Your task to perform on an android device: Clear the cart on costco.com. Add "jbl flip 4" to the cart on costco.com, then select checkout. Image 0: 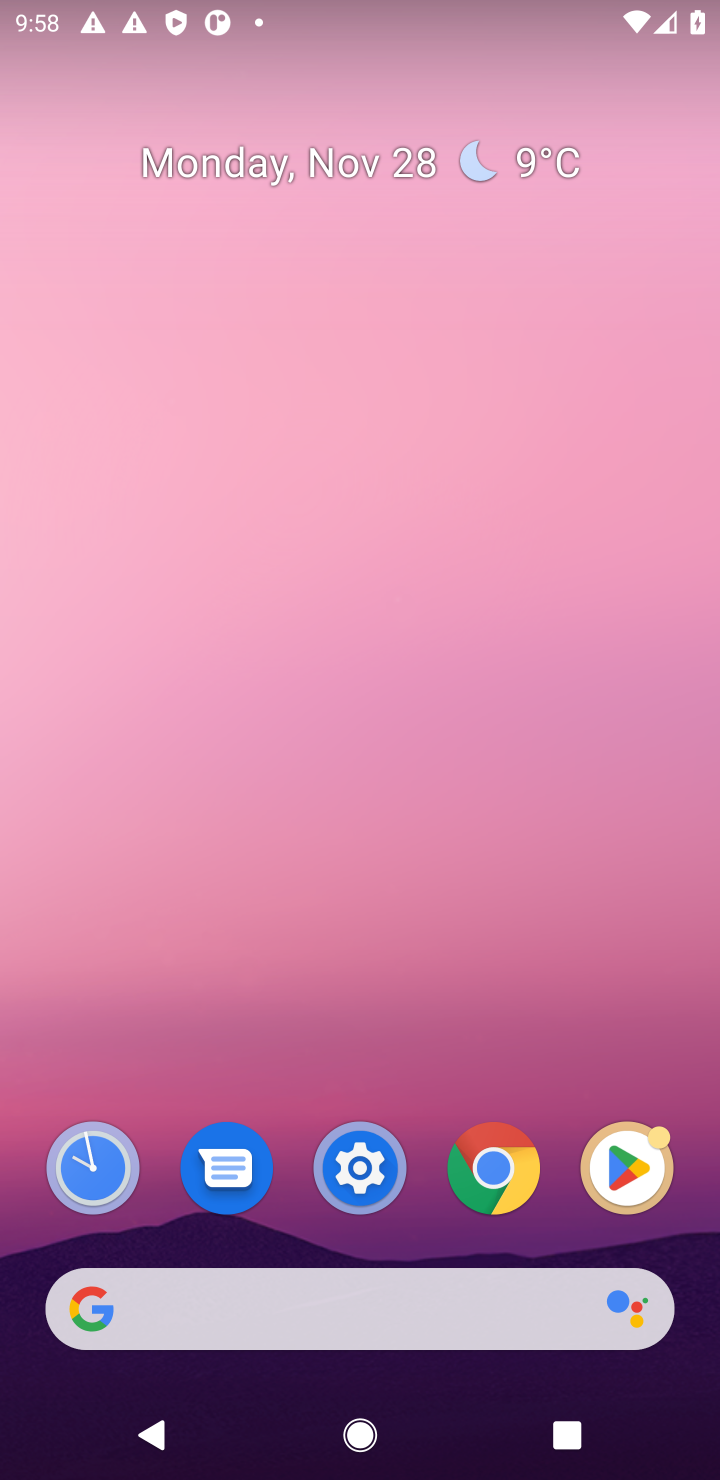
Step 0: click (244, 1332)
Your task to perform on an android device: Clear the cart on costco.com. Add "jbl flip 4" to the cart on costco.com, then select checkout. Image 1: 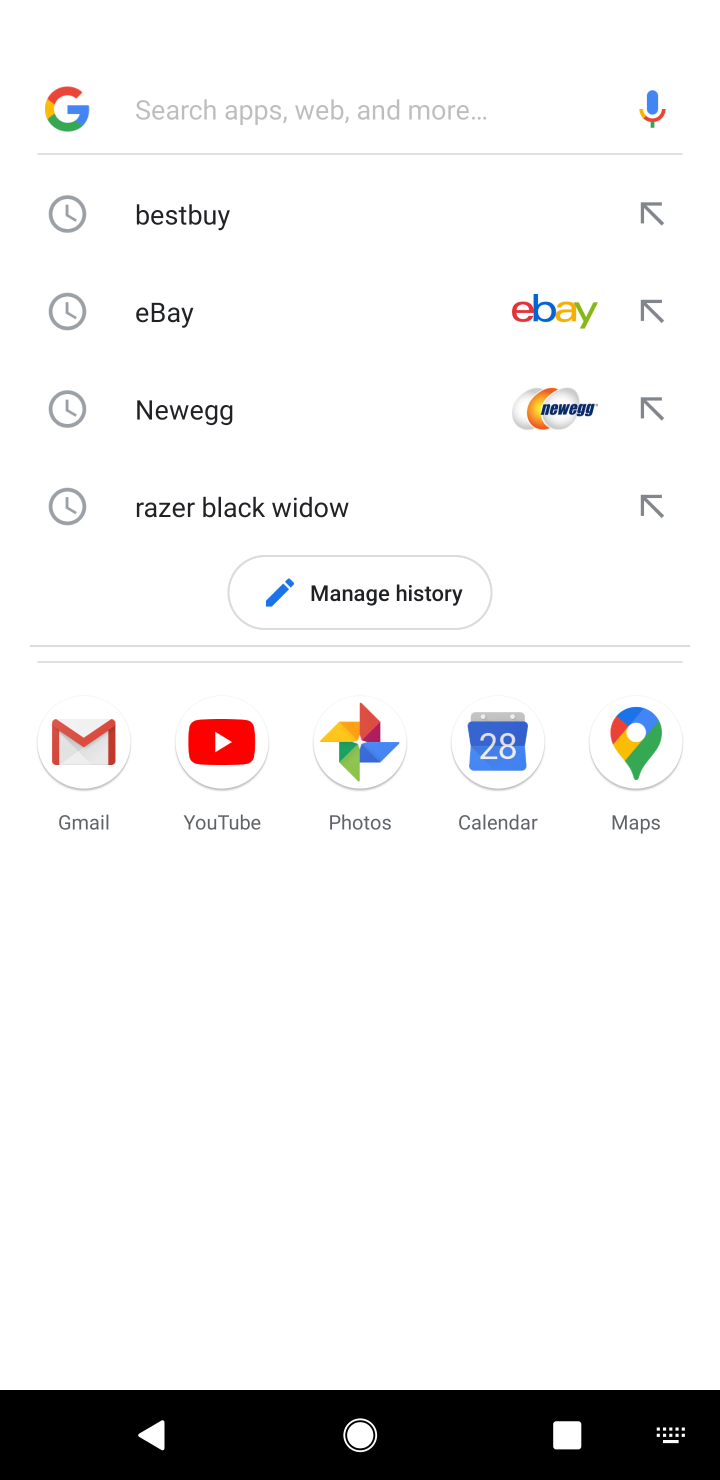
Step 1: type "costco"
Your task to perform on an android device: Clear the cart on costco.com. Add "jbl flip 4" to the cart on costco.com, then select checkout. Image 2: 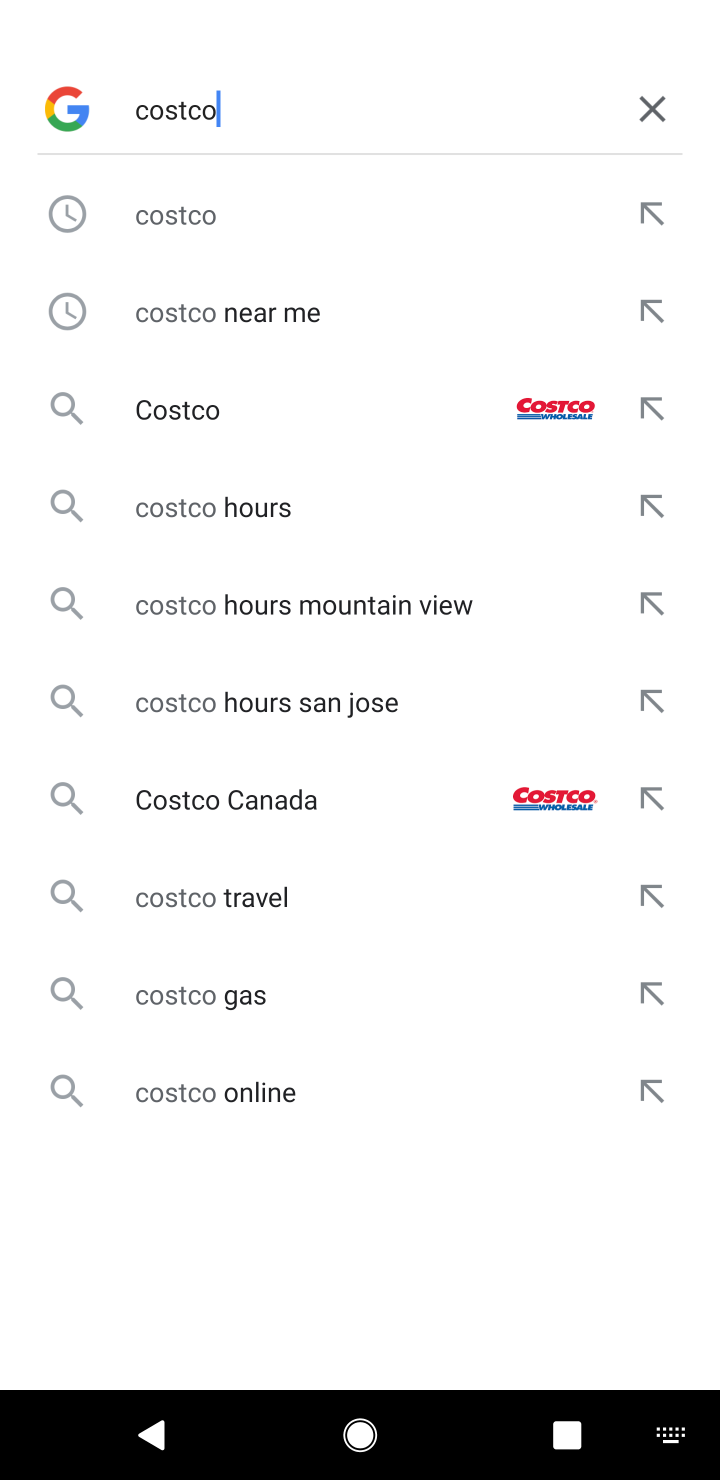
Step 2: click (279, 414)
Your task to perform on an android device: Clear the cart on costco.com. Add "jbl flip 4" to the cart on costco.com, then select checkout. Image 3: 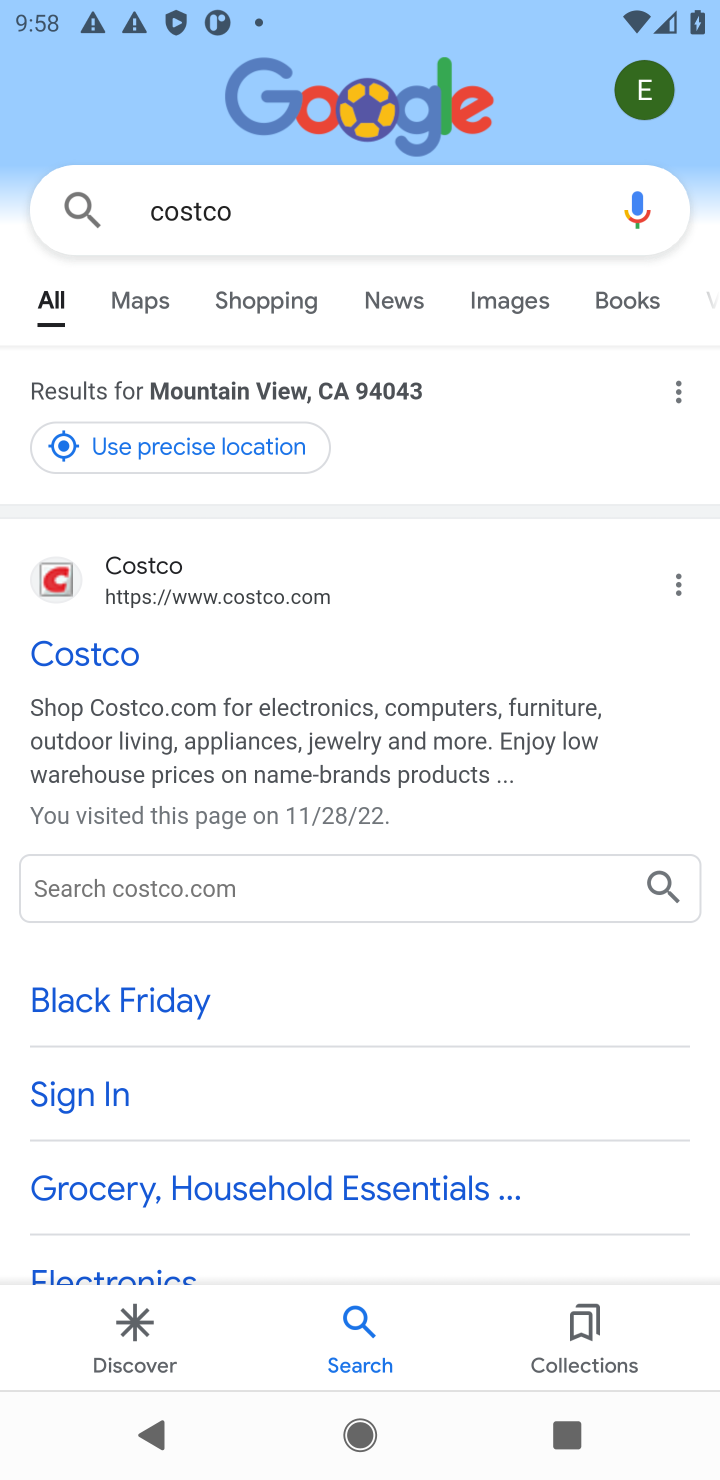
Step 3: click (106, 667)
Your task to perform on an android device: Clear the cart on costco.com. Add "jbl flip 4" to the cart on costco.com, then select checkout. Image 4: 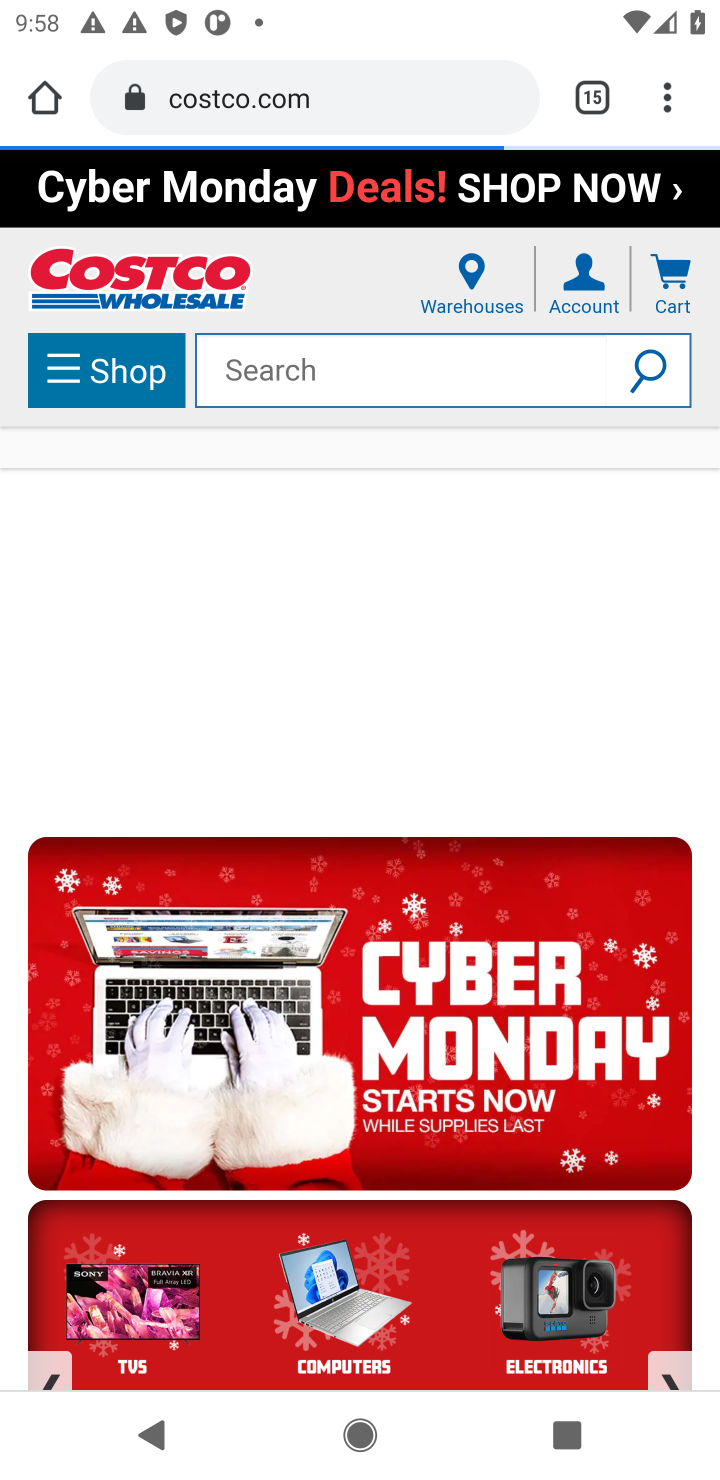
Step 4: click (296, 383)
Your task to perform on an android device: Clear the cart on costco.com. Add "jbl flip 4" to the cart on costco.com, then select checkout. Image 5: 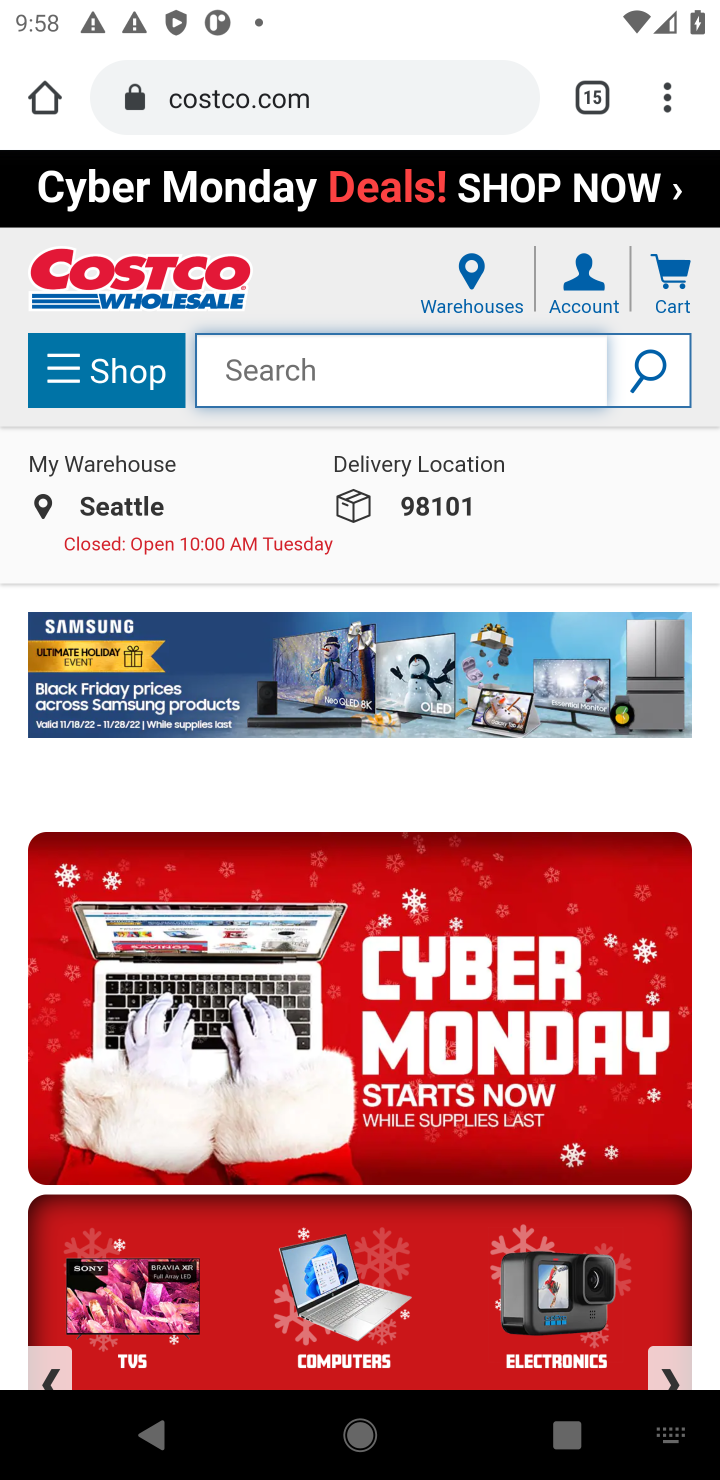
Step 5: type "jbl flip 4"
Your task to perform on an android device: Clear the cart on costco.com. Add "jbl flip 4" to the cart on costco.com, then select checkout. Image 6: 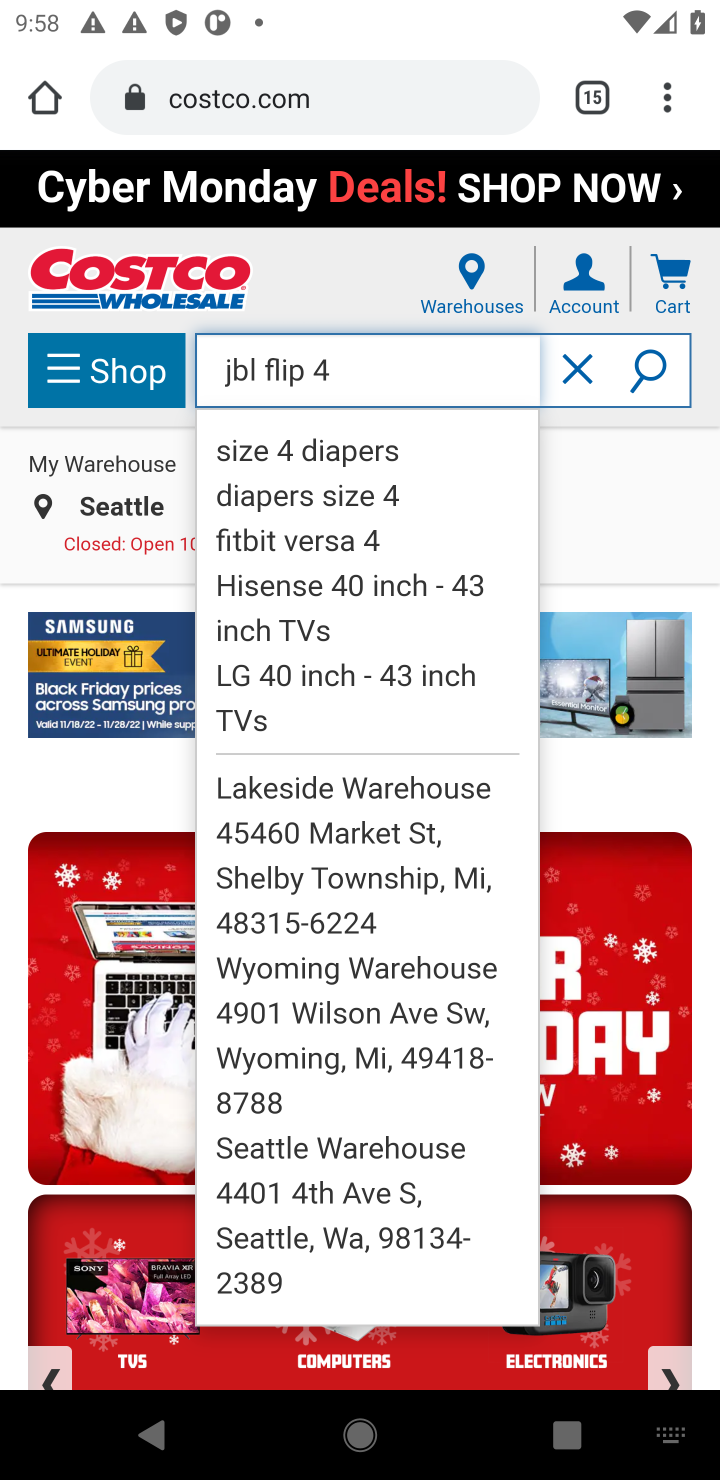
Step 6: click (659, 394)
Your task to perform on an android device: Clear the cart on costco.com. Add "jbl flip 4" to the cart on costco.com, then select checkout. Image 7: 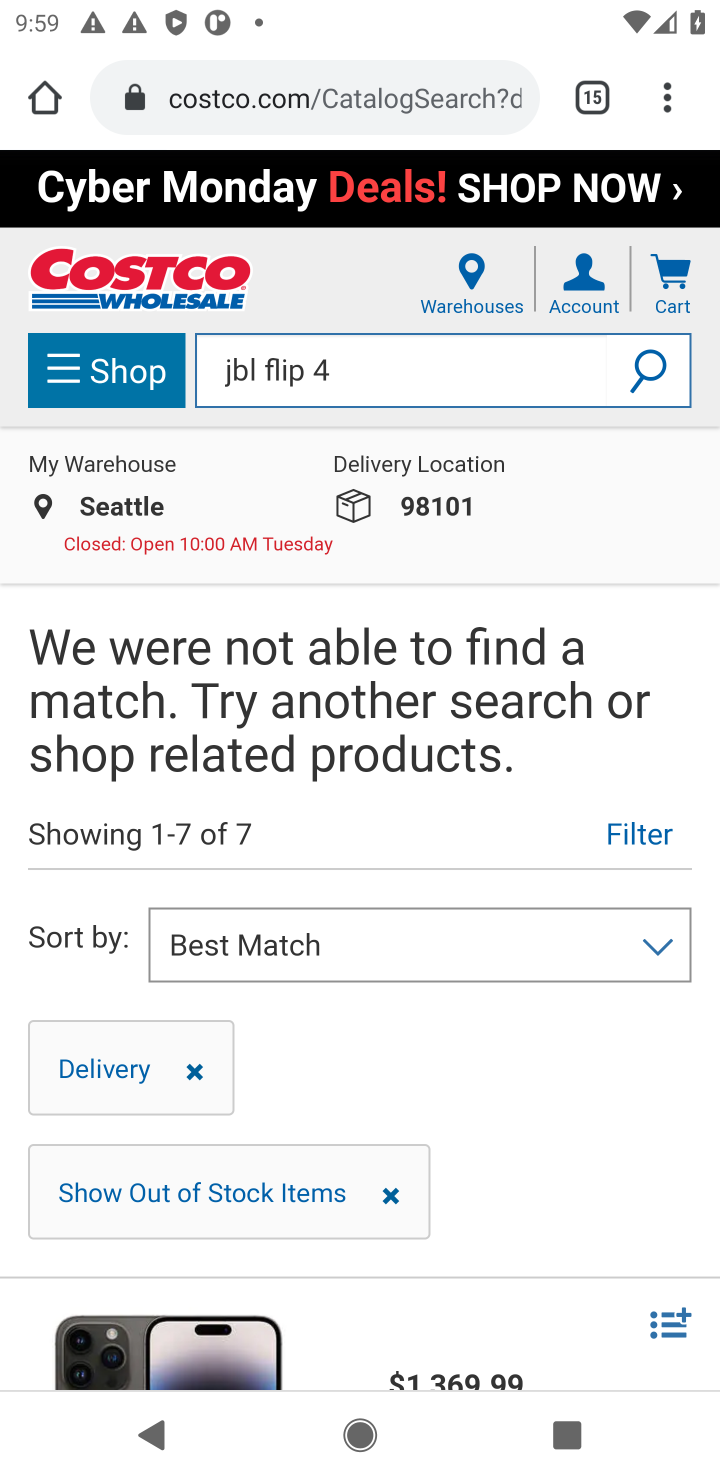
Step 7: task complete